Your task to perform on an android device: empty trash in google photos Image 0: 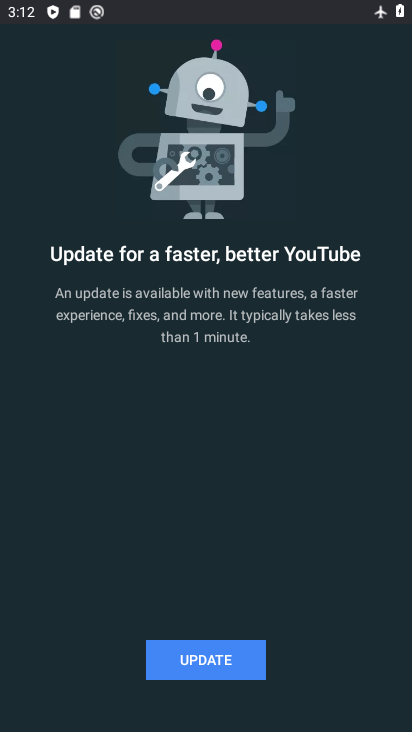
Step 0: press back button
Your task to perform on an android device: empty trash in google photos Image 1: 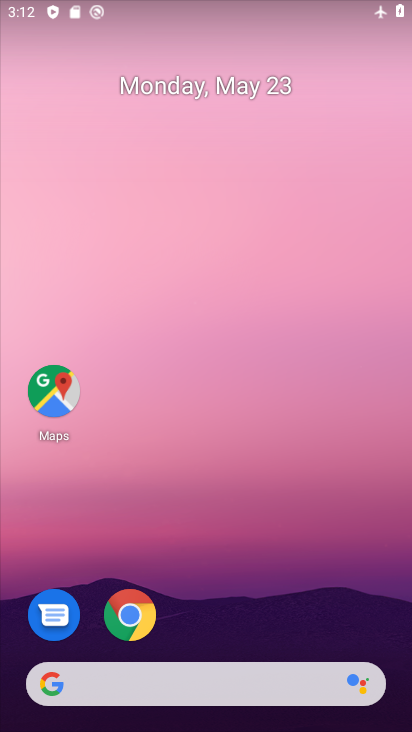
Step 1: drag from (212, 586) to (214, 353)
Your task to perform on an android device: empty trash in google photos Image 2: 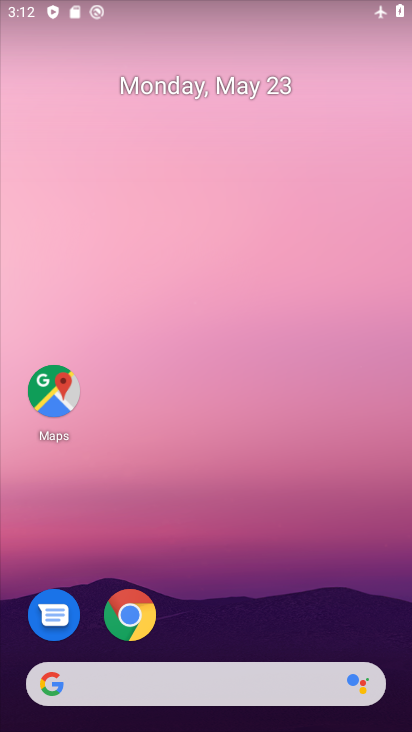
Step 2: drag from (263, 603) to (303, 319)
Your task to perform on an android device: empty trash in google photos Image 3: 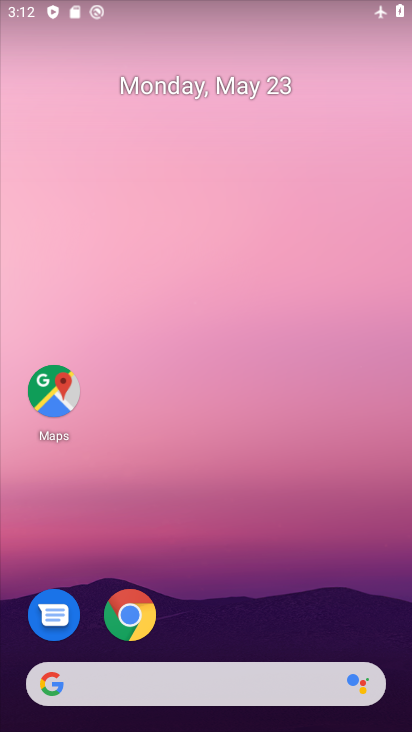
Step 3: drag from (246, 607) to (297, 278)
Your task to perform on an android device: empty trash in google photos Image 4: 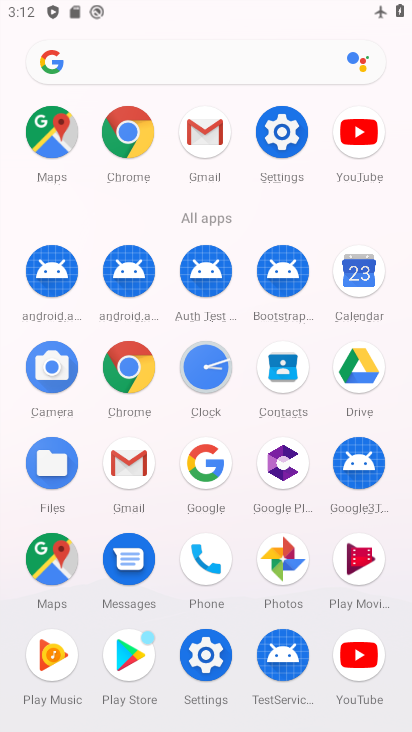
Step 4: click (271, 560)
Your task to perform on an android device: empty trash in google photos Image 5: 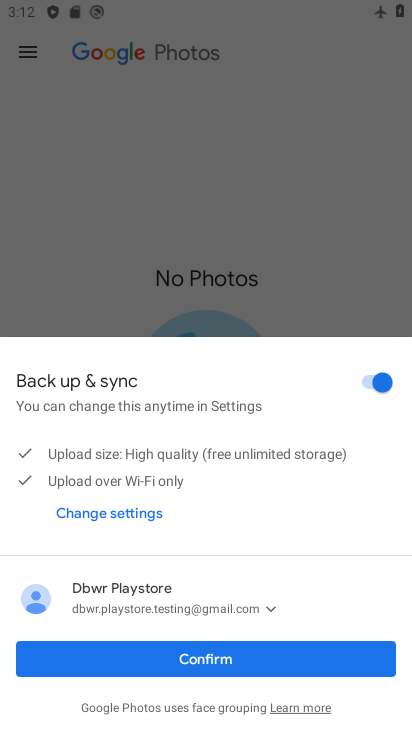
Step 5: click (260, 655)
Your task to perform on an android device: empty trash in google photos Image 6: 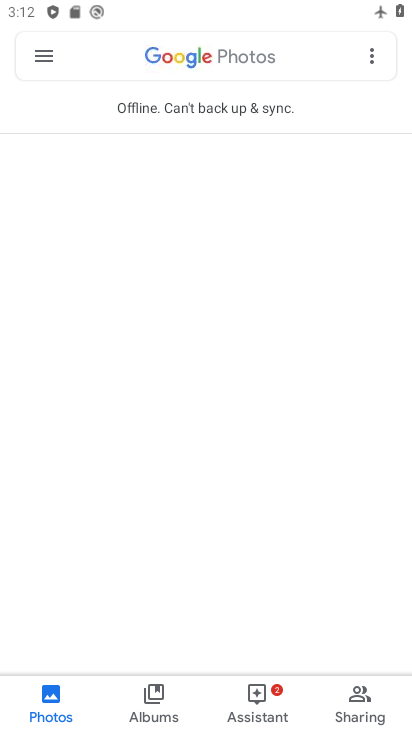
Step 6: click (43, 54)
Your task to perform on an android device: empty trash in google photos Image 7: 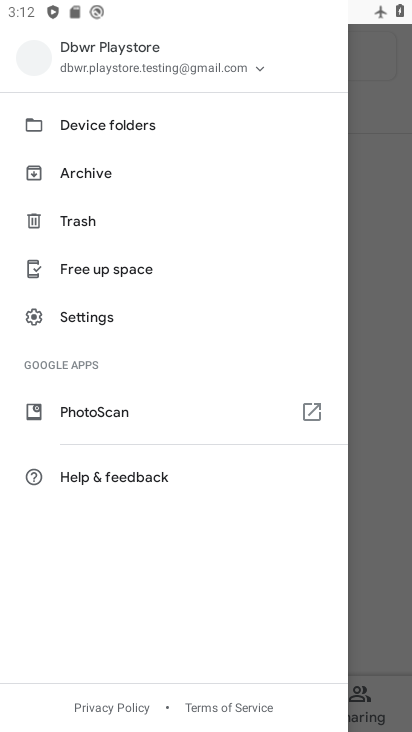
Step 7: click (90, 318)
Your task to perform on an android device: empty trash in google photos Image 8: 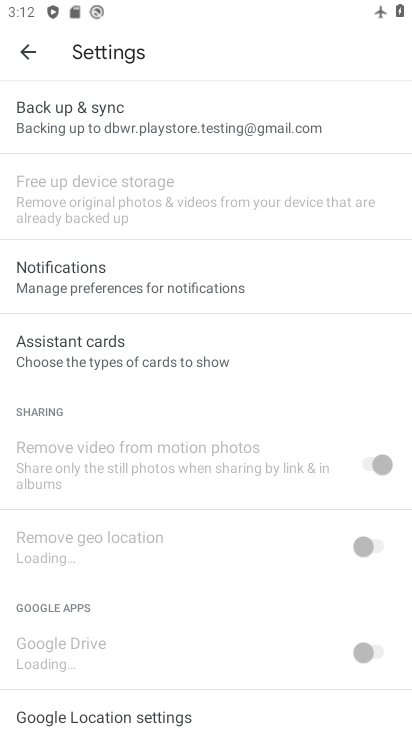
Step 8: drag from (102, 504) to (192, 179)
Your task to perform on an android device: empty trash in google photos Image 9: 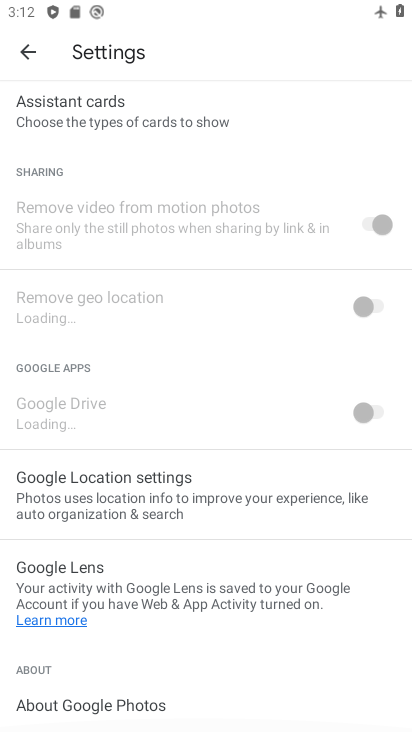
Step 9: click (28, 50)
Your task to perform on an android device: empty trash in google photos Image 10: 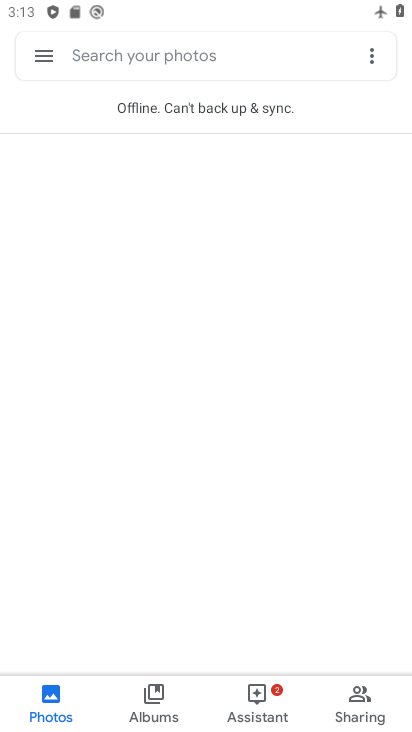
Step 10: click (47, 52)
Your task to perform on an android device: empty trash in google photos Image 11: 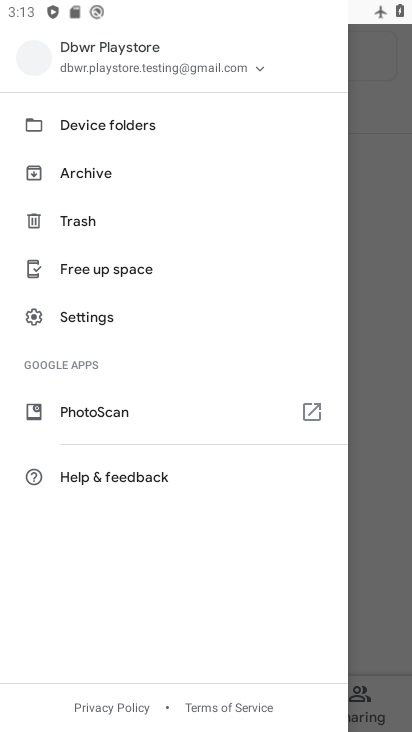
Step 11: click (88, 227)
Your task to perform on an android device: empty trash in google photos Image 12: 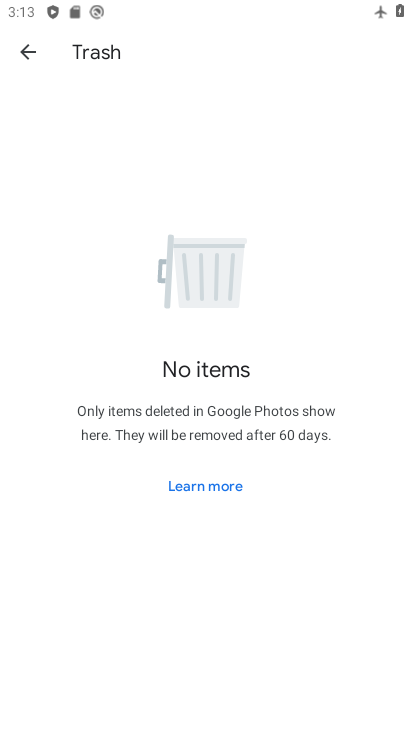
Step 12: task complete